Your task to perform on an android device: change timer sound Image 0: 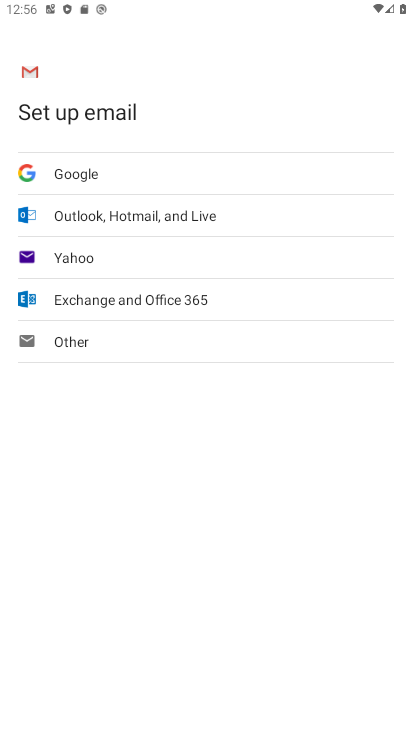
Step 0: press home button
Your task to perform on an android device: change timer sound Image 1: 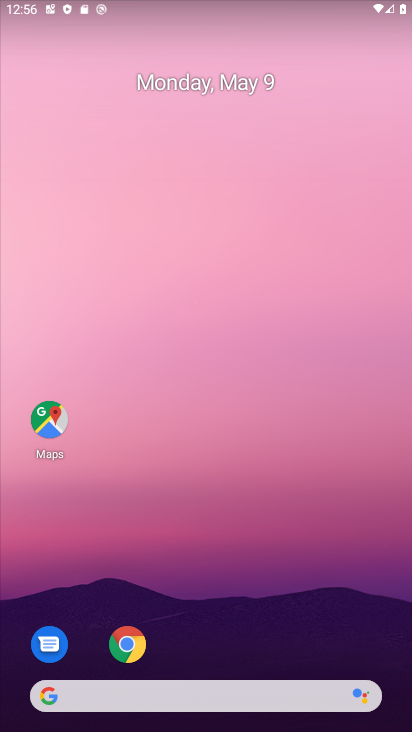
Step 1: drag from (296, 580) to (260, 126)
Your task to perform on an android device: change timer sound Image 2: 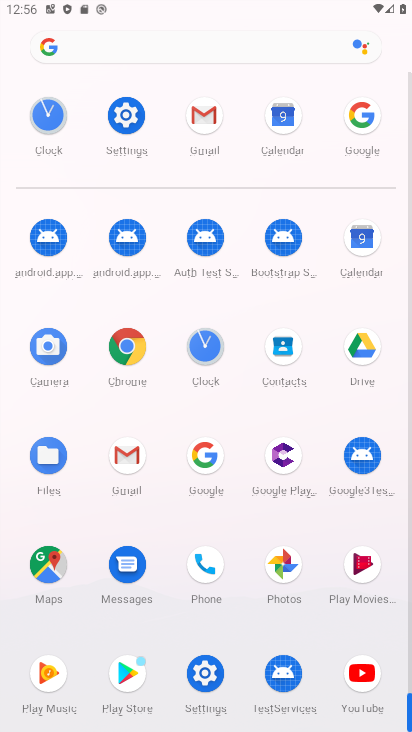
Step 2: click (45, 112)
Your task to perform on an android device: change timer sound Image 3: 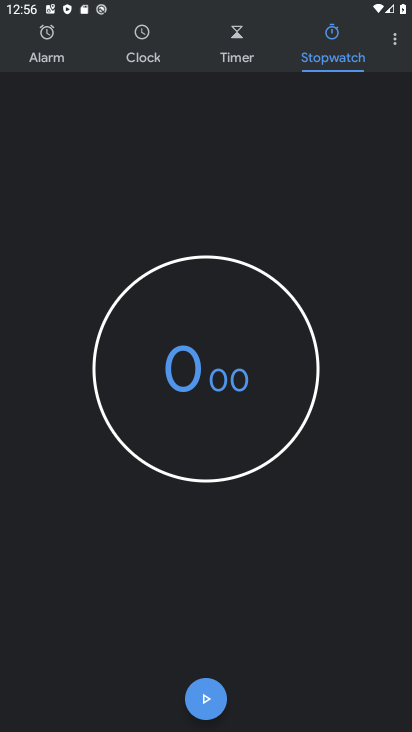
Step 3: click (394, 45)
Your task to perform on an android device: change timer sound Image 4: 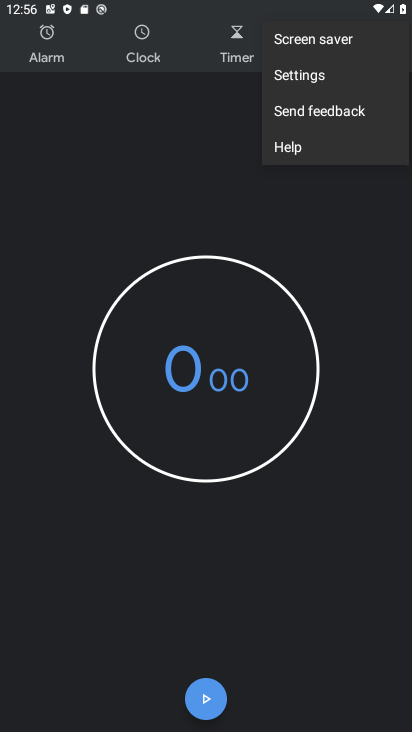
Step 4: click (305, 85)
Your task to perform on an android device: change timer sound Image 5: 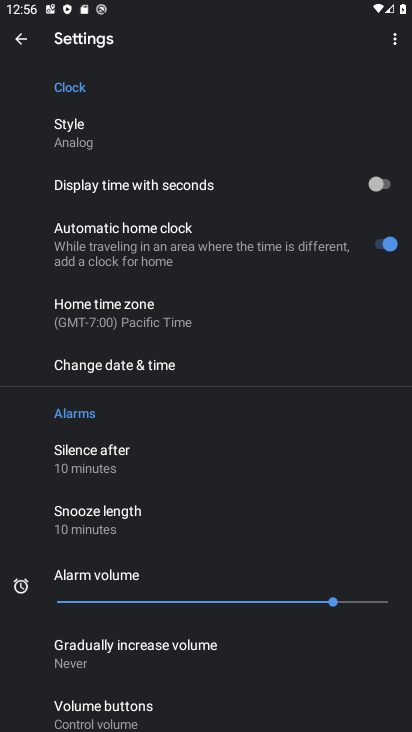
Step 5: drag from (268, 541) to (252, 323)
Your task to perform on an android device: change timer sound Image 6: 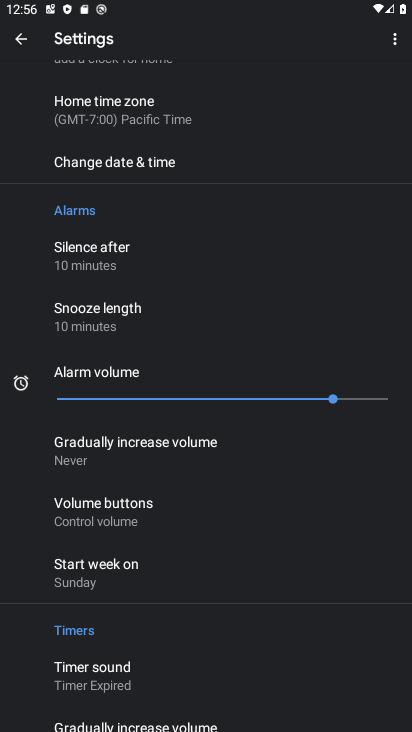
Step 6: drag from (231, 608) to (244, 339)
Your task to perform on an android device: change timer sound Image 7: 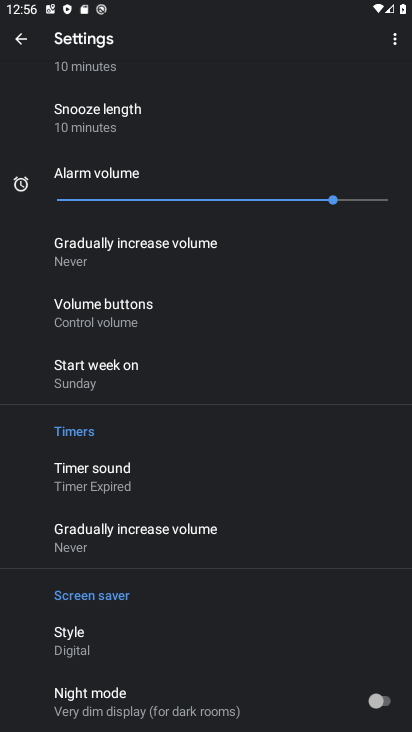
Step 7: click (93, 495)
Your task to perform on an android device: change timer sound Image 8: 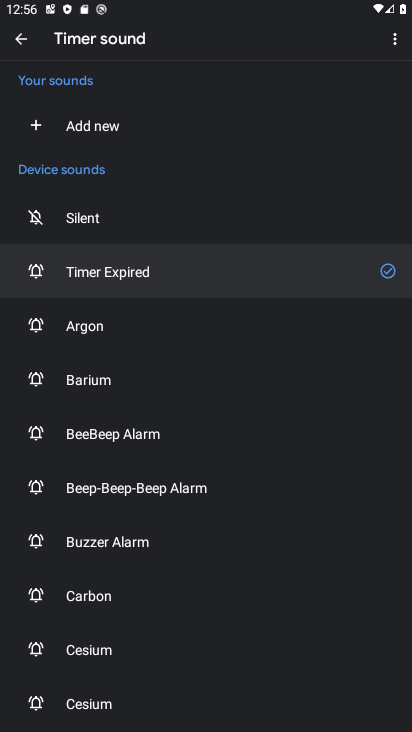
Step 8: click (65, 347)
Your task to perform on an android device: change timer sound Image 9: 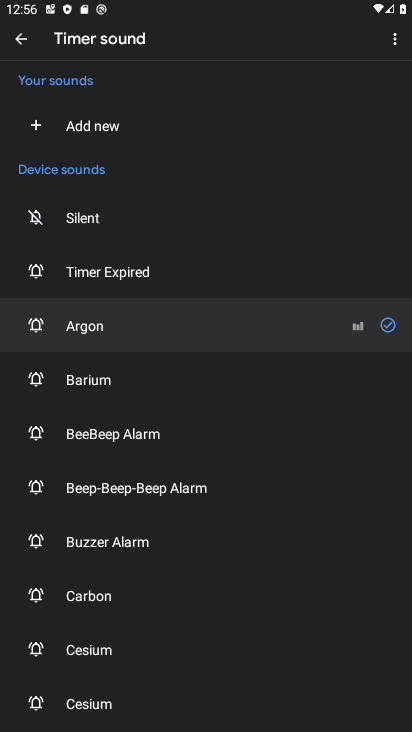
Step 9: task complete